Your task to perform on an android device: allow notifications from all sites in the chrome app Image 0: 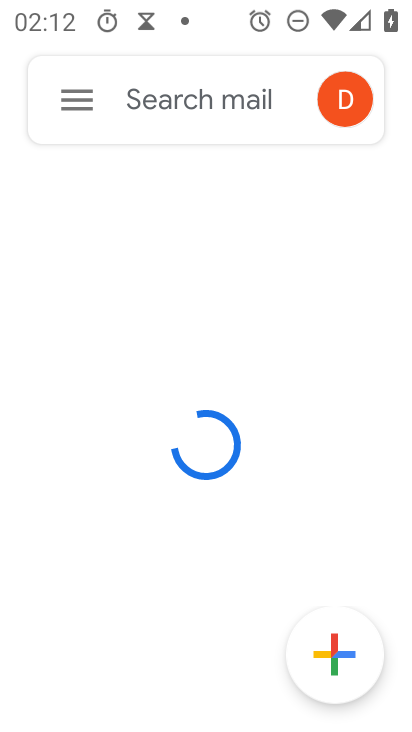
Step 0: press home button
Your task to perform on an android device: allow notifications from all sites in the chrome app Image 1: 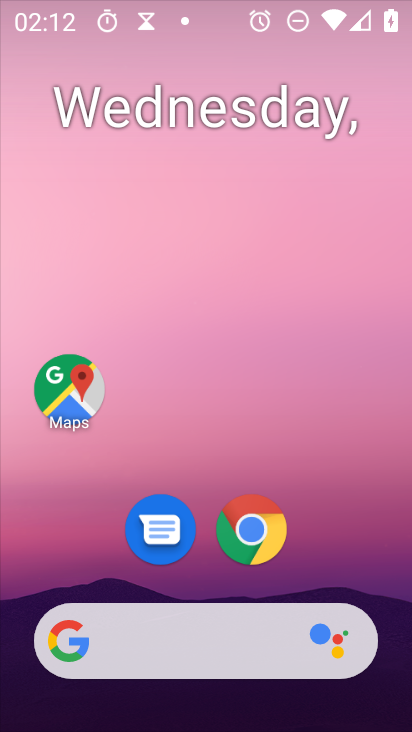
Step 1: drag from (267, 663) to (219, 171)
Your task to perform on an android device: allow notifications from all sites in the chrome app Image 2: 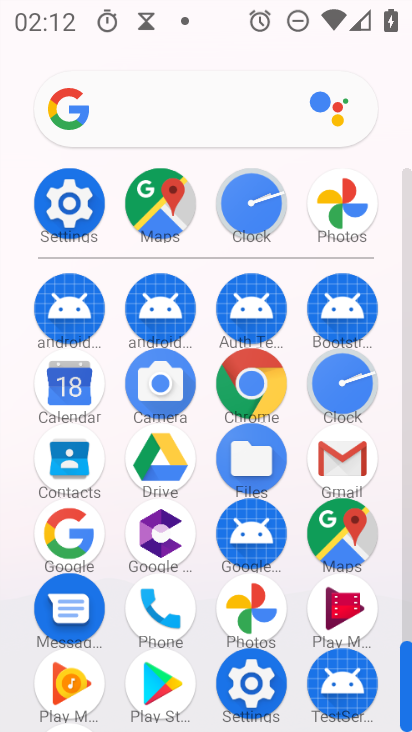
Step 2: click (262, 381)
Your task to perform on an android device: allow notifications from all sites in the chrome app Image 3: 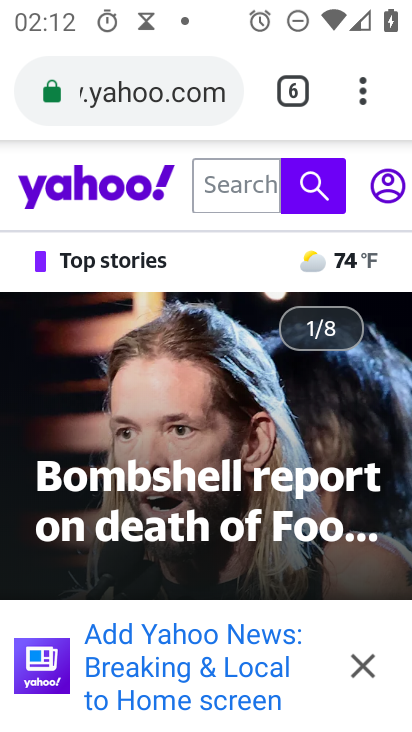
Step 3: click (360, 83)
Your task to perform on an android device: allow notifications from all sites in the chrome app Image 4: 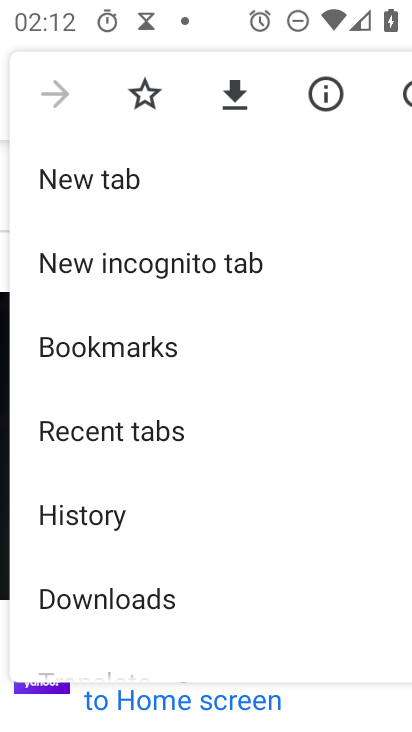
Step 4: drag from (158, 630) to (168, 684)
Your task to perform on an android device: allow notifications from all sites in the chrome app Image 5: 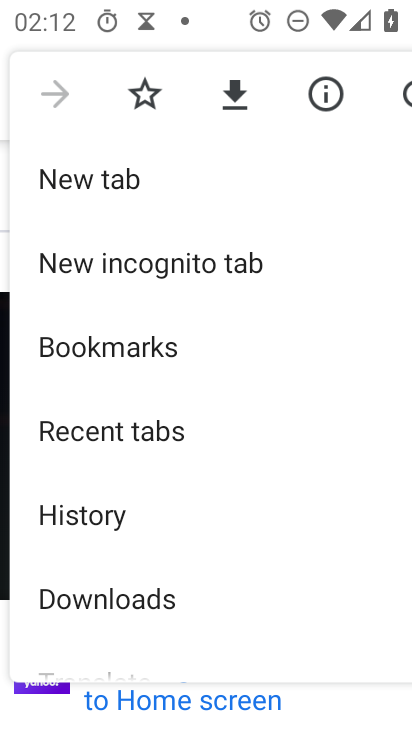
Step 5: drag from (234, 599) to (280, 166)
Your task to perform on an android device: allow notifications from all sites in the chrome app Image 6: 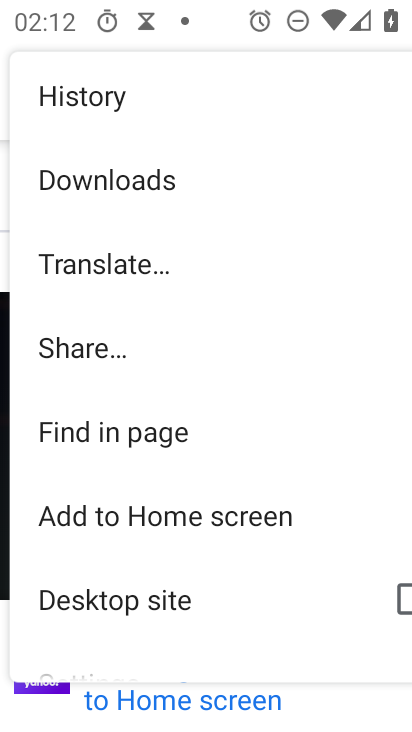
Step 6: drag from (146, 661) to (232, 274)
Your task to perform on an android device: allow notifications from all sites in the chrome app Image 7: 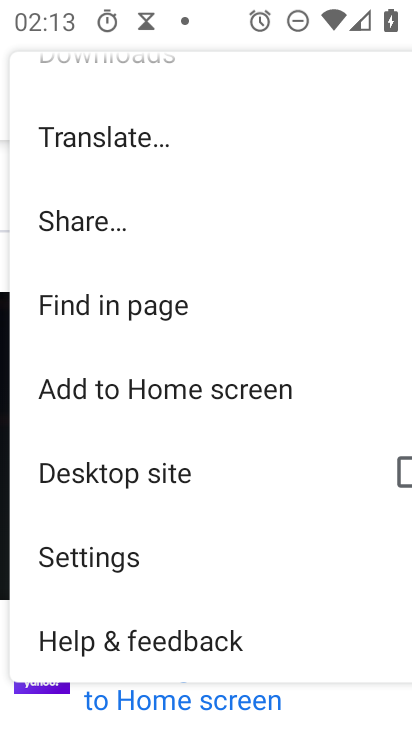
Step 7: click (127, 551)
Your task to perform on an android device: allow notifications from all sites in the chrome app Image 8: 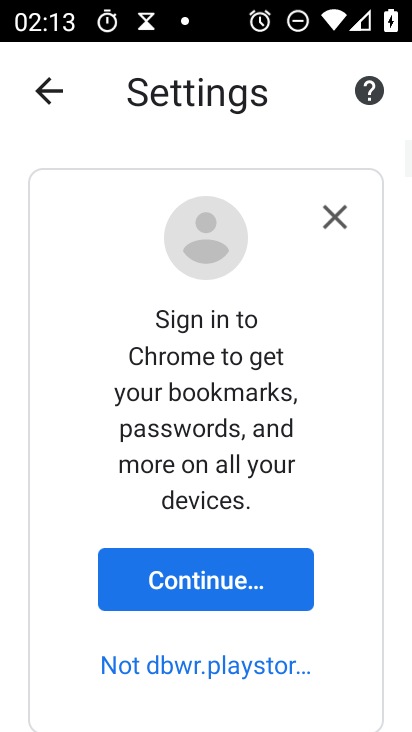
Step 8: drag from (347, 622) to (362, 54)
Your task to perform on an android device: allow notifications from all sites in the chrome app Image 9: 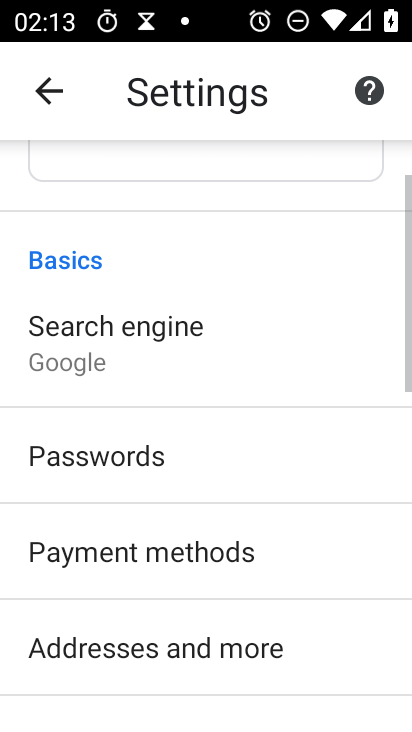
Step 9: drag from (325, 645) to (339, 133)
Your task to perform on an android device: allow notifications from all sites in the chrome app Image 10: 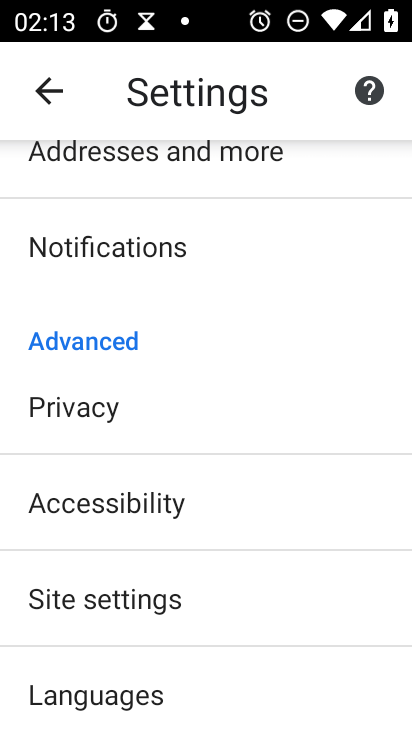
Step 10: drag from (278, 624) to (283, 346)
Your task to perform on an android device: allow notifications from all sites in the chrome app Image 11: 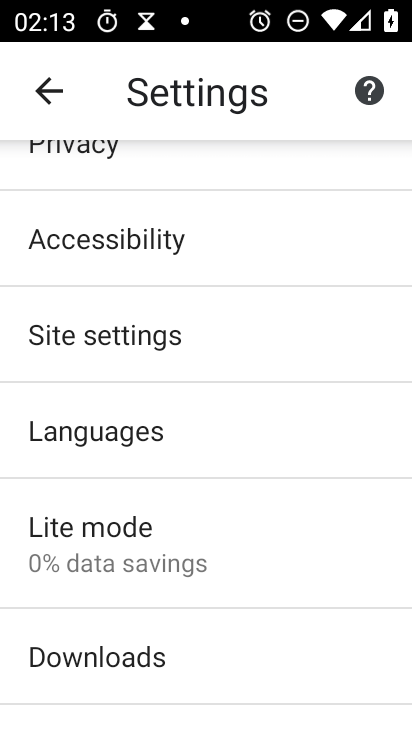
Step 11: click (157, 342)
Your task to perform on an android device: allow notifications from all sites in the chrome app Image 12: 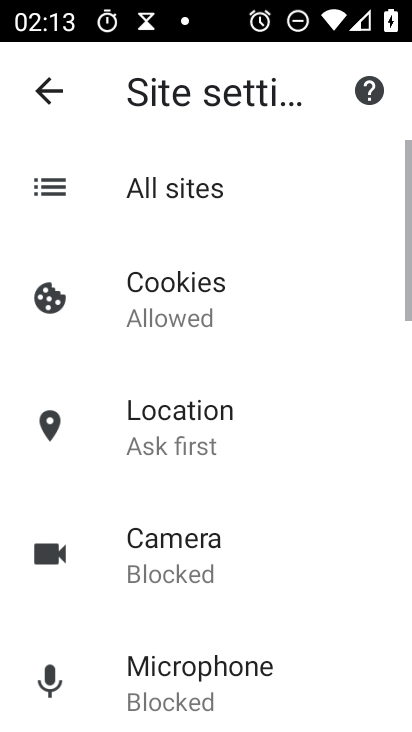
Step 12: drag from (211, 633) to (239, 149)
Your task to perform on an android device: allow notifications from all sites in the chrome app Image 13: 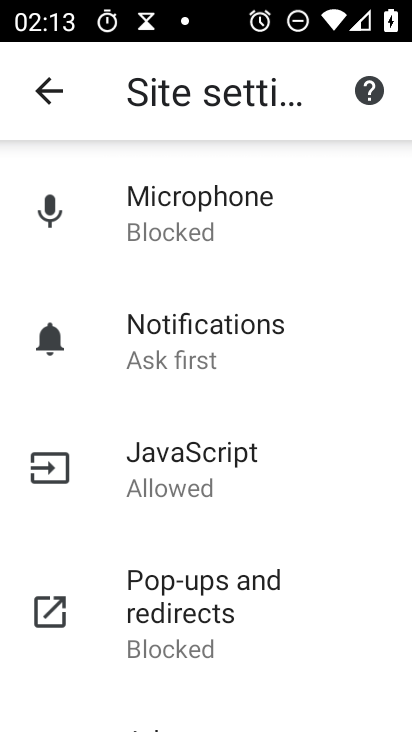
Step 13: click (225, 314)
Your task to perform on an android device: allow notifications from all sites in the chrome app Image 14: 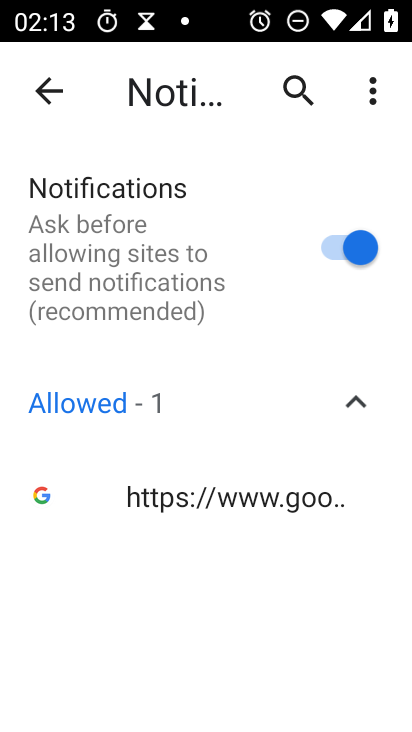
Step 14: click (304, 500)
Your task to perform on an android device: allow notifications from all sites in the chrome app Image 15: 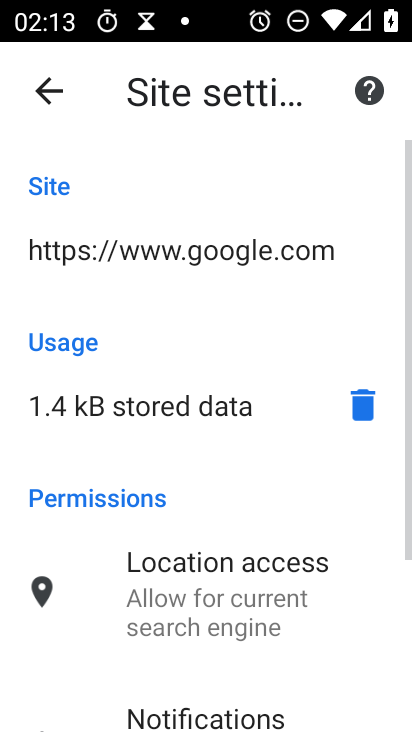
Step 15: task complete